Your task to perform on an android device: Go to Wikipedia Image 0: 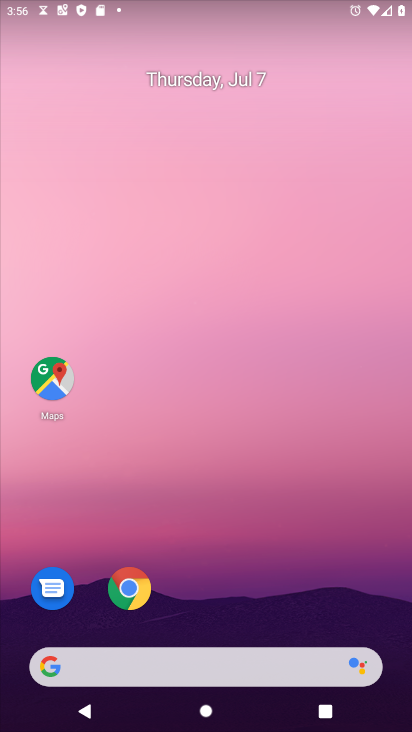
Step 0: drag from (231, 610) to (217, 114)
Your task to perform on an android device: Go to Wikipedia Image 1: 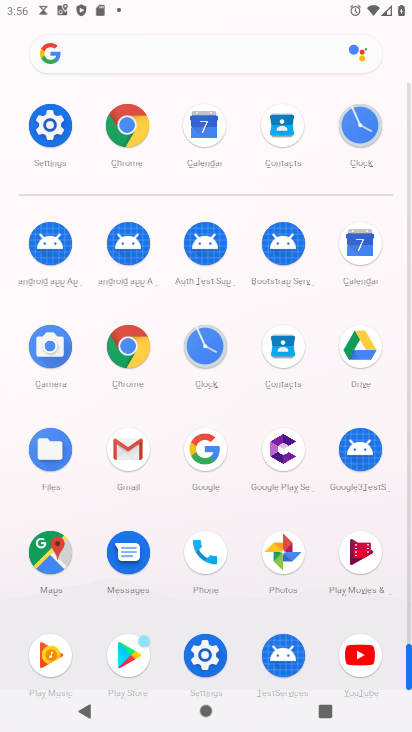
Step 1: click (127, 127)
Your task to perform on an android device: Go to Wikipedia Image 2: 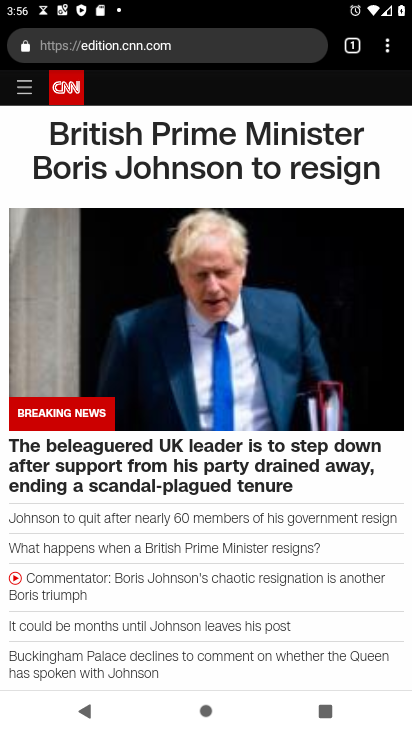
Step 2: click (204, 46)
Your task to perform on an android device: Go to Wikipedia Image 3: 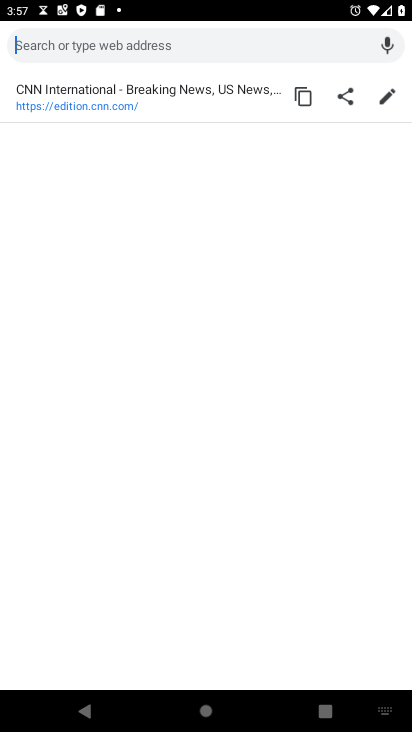
Step 3: type "Wikipedia"
Your task to perform on an android device: Go to Wikipedia Image 4: 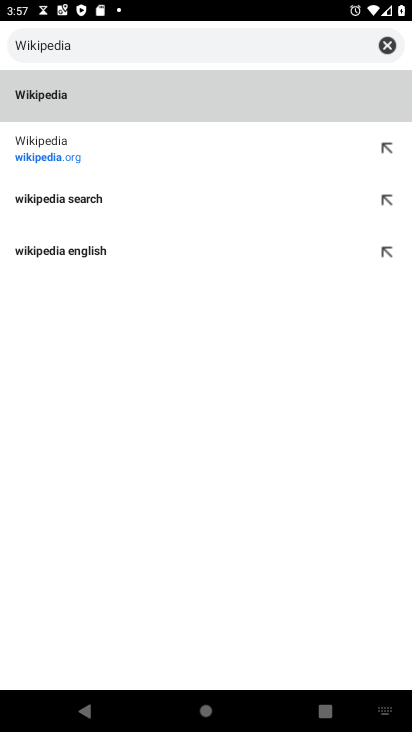
Step 4: click (55, 102)
Your task to perform on an android device: Go to Wikipedia Image 5: 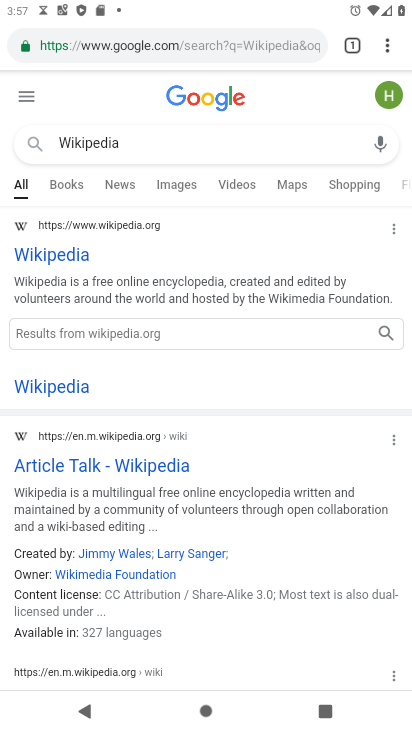
Step 5: click (76, 247)
Your task to perform on an android device: Go to Wikipedia Image 6: 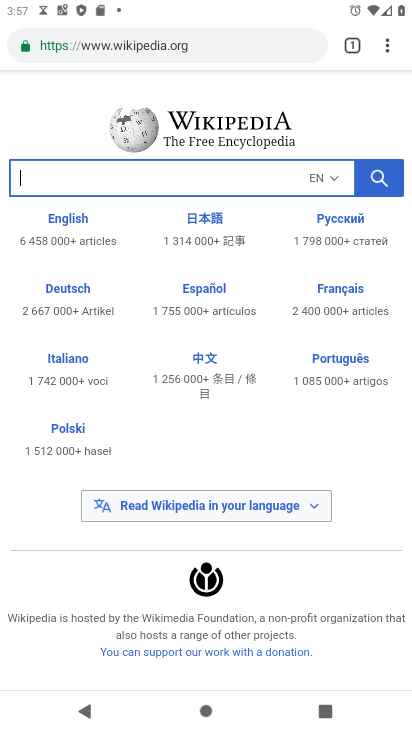
Step 6: task complete